Your task to perform on an android device: Open notification settings Image 0: 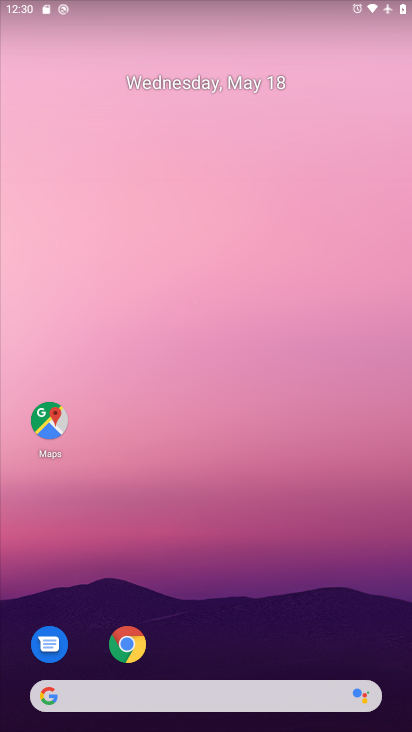
Step 0: drag from (218, 647) to (274, 101)
Your task to perform on an android device: Open notification settings Image 1: 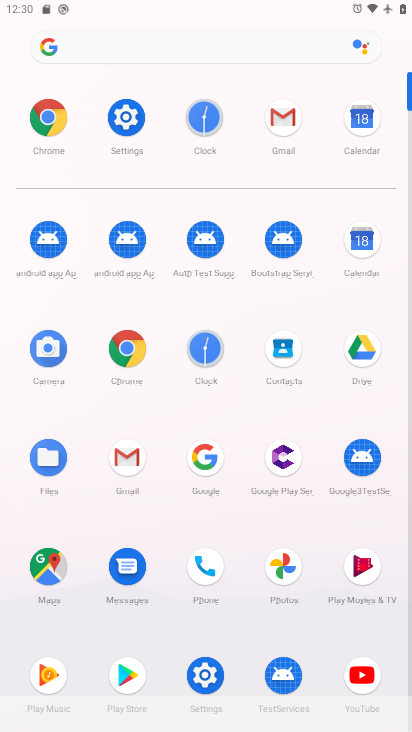
Step 1: click (121, 107)
Your task to perform on an android device: Open notification settings Image 2: 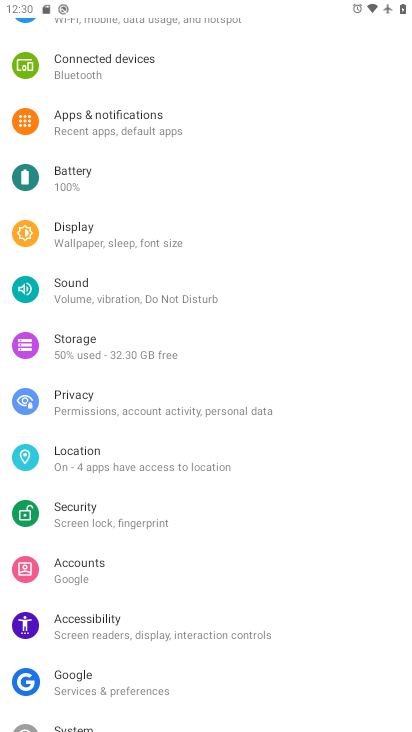
Step 2: click (169, 132)
Your task to perform on an android device: Open notification settings Image 3: 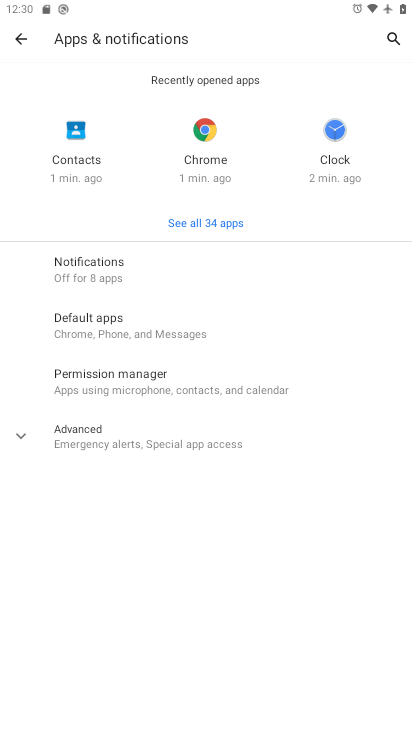
Step 3: click (134, 263)
Your task to perform on an android device: Open notification settings Image 4: 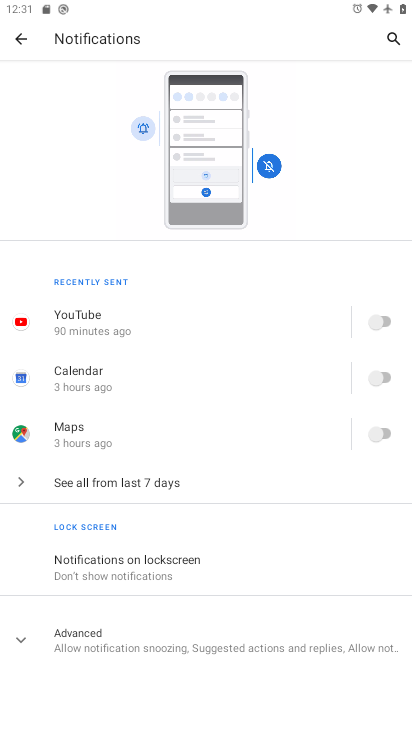
Step 4: click (75, 642)
Your task to perform on an android device: Open notification settings Image 5: 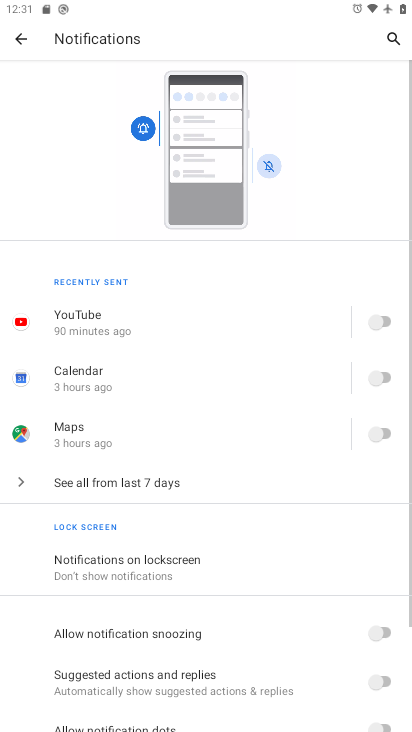
Step 5: click (383, 320)
Your task to perform on an android device: Open notification settings Image 6: 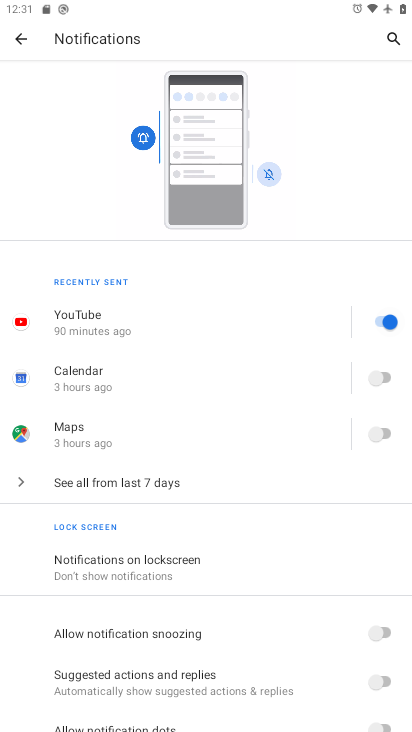
Step 6: click (384, 362)
Your task to perform on an android device: Open notification settings Image 7: 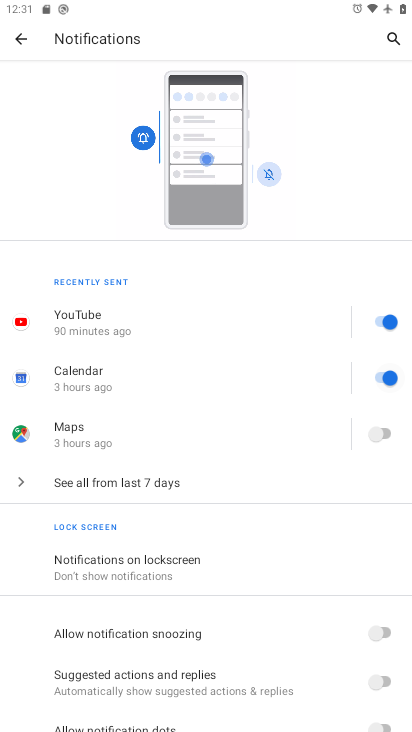
Step 7: click (384, 423)
Your task to perform on an android device: Open notification settings Image 8: 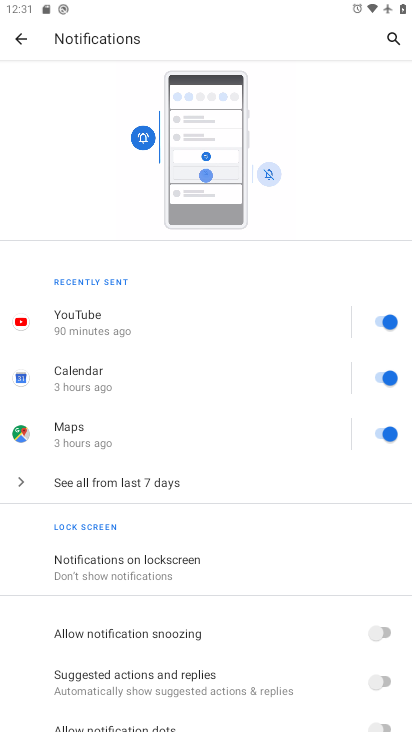
Step 8: click (378, 640)
Your task to perform on an android device: Open notification settings Image 9: 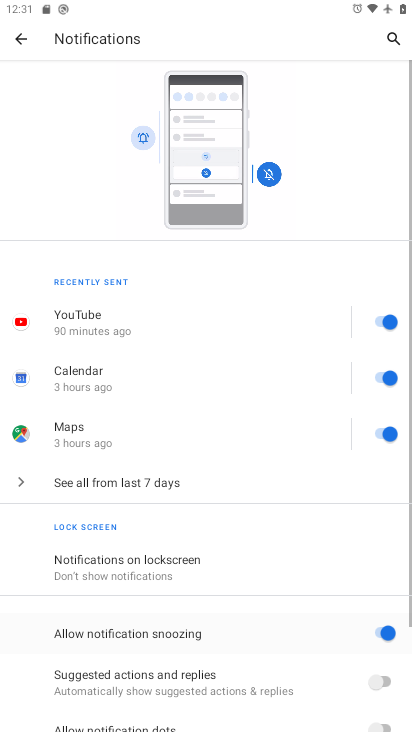
Step 9: click (389, 679)
Your task to perform on an android device: Open notification settings Image 10: 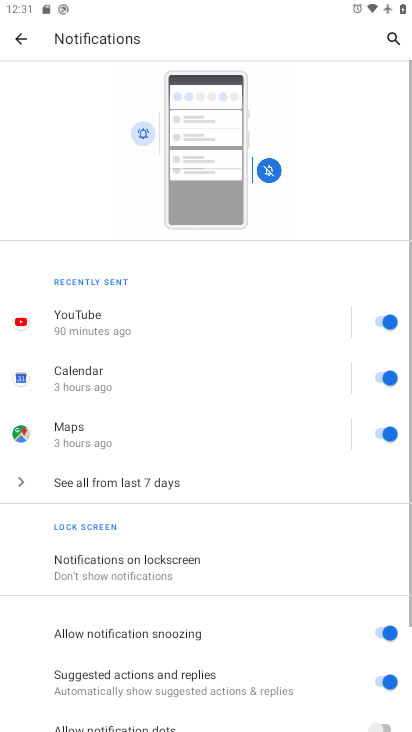
Step 10: click (392, 721)
Your task to perform on an android device: Open notification settings Image 11: 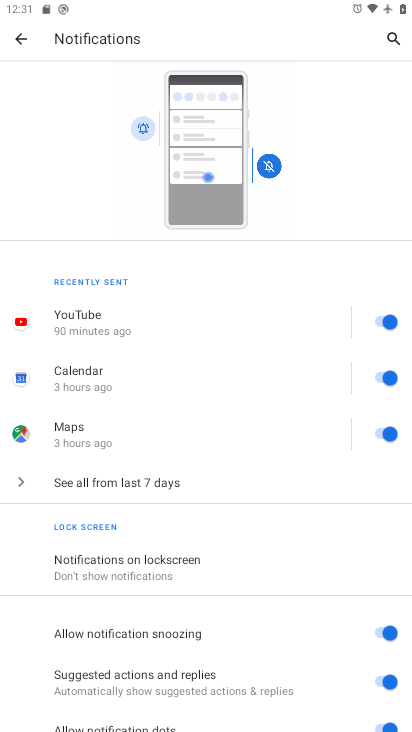
Step 11: task complete